Your task to perform on an android device: Open settings on Google Maps Image 0: 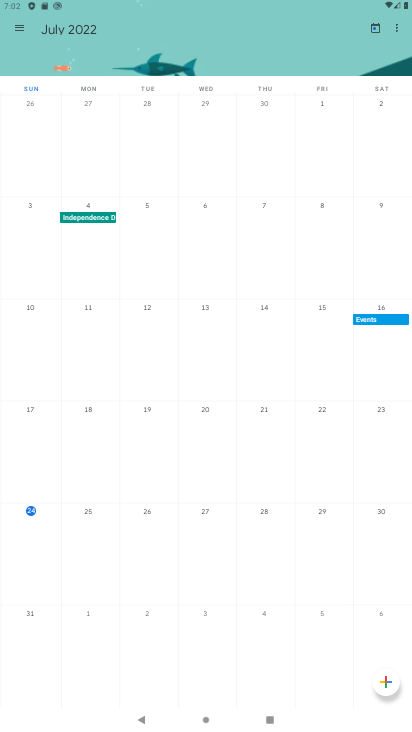
Step 0: press home button
Your task to perform on an android device: Open settings on Google Maps Image 1: 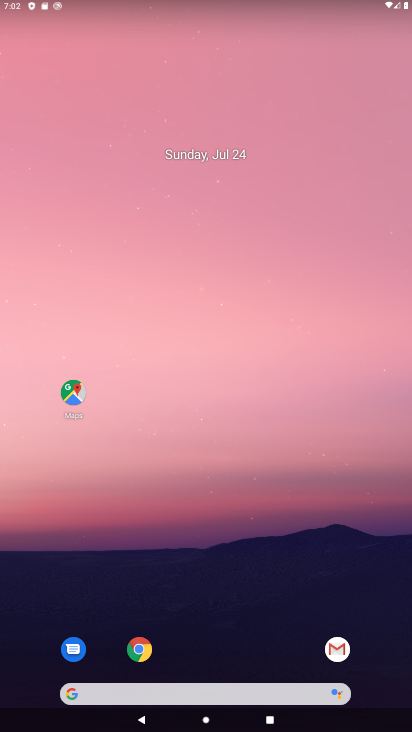
Step 1: click (79, 401)
Your task to perform on an android device: Open settings on Google Maps Image 2: 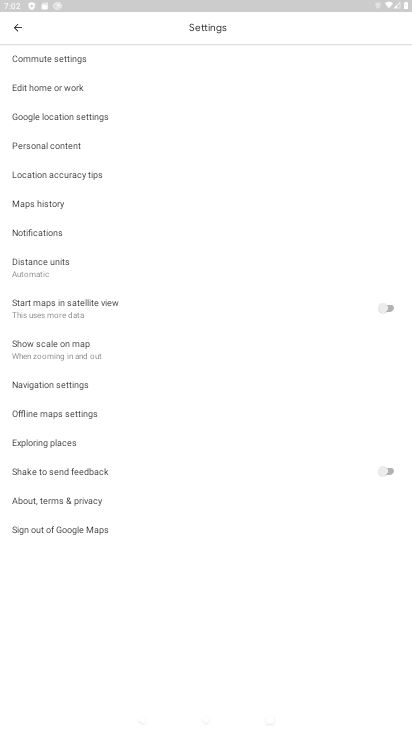
Step 2: task complete